Your task to perform on an android device: Is it going to rain tomorrow? Image 0: 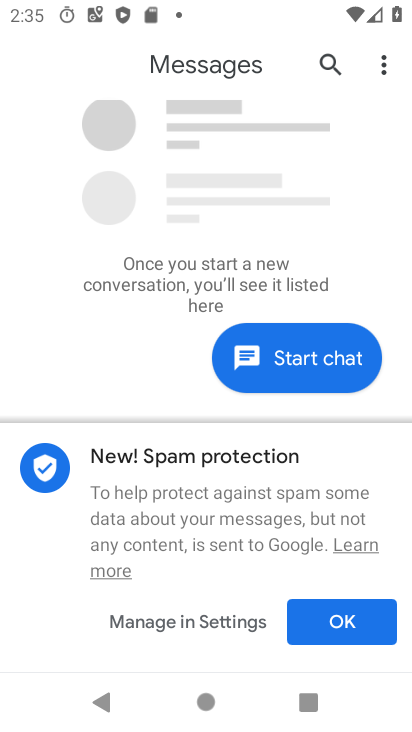
Step 0: press home button
Your task to perform on an android device: Is it going to rain tomorrow? Image 1: 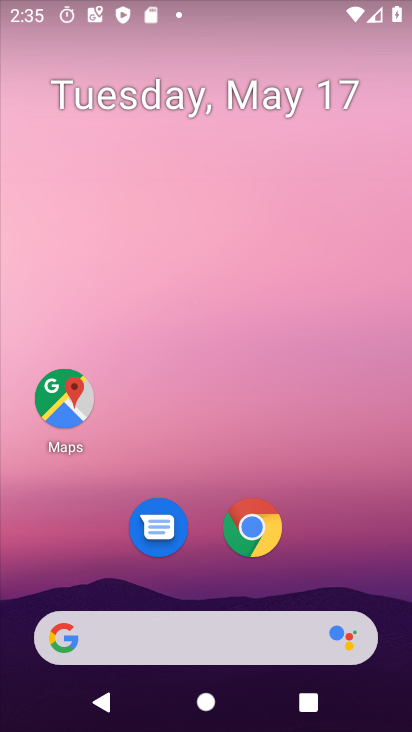
Step 1: drag from (231, 667) to (320, 69)
Your task to perform on an android device: Is it going to rain tomorrow? Image 2: 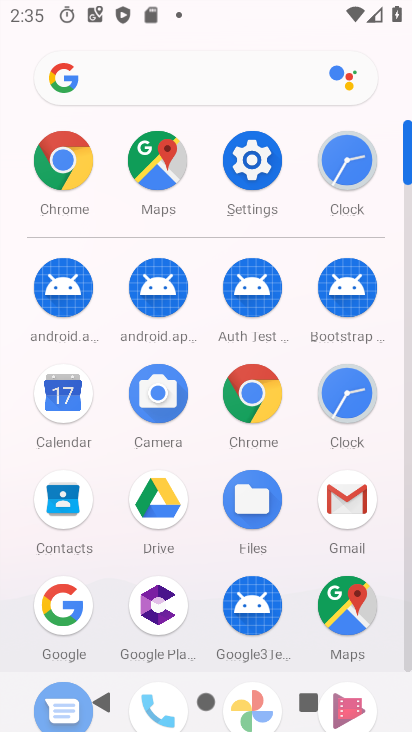
Step 2: click (108, 76)
Your task to perform on an android device: Is it going to rain tomorrow? Image 3: 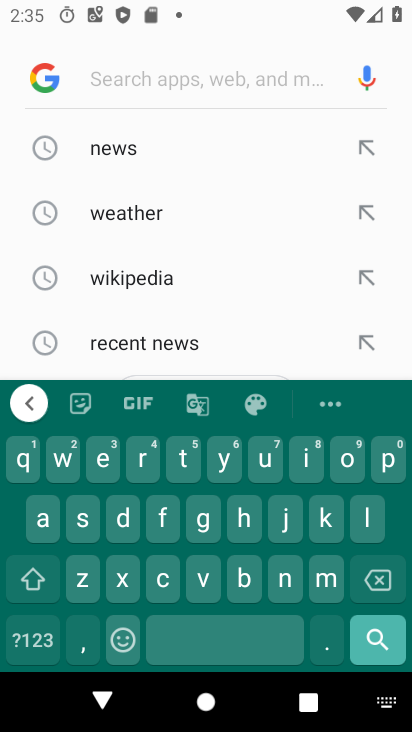
Step 3: click (138, 459)
Your task to perform on an android device: Is it going to rain tomorrow? Image 4: 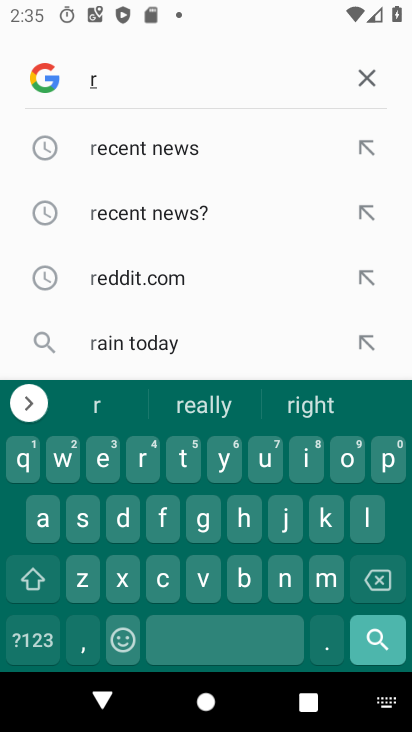
Step 4: click (45, 526)
Your task to perform on an android device: Is it going to rain tomorrow? Image 5: 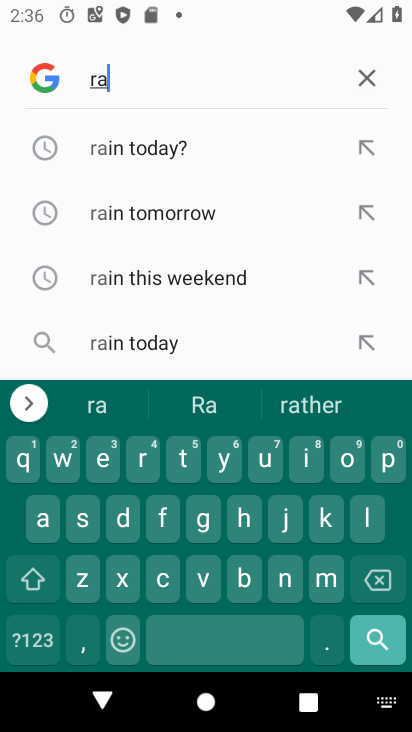
Step 5: click (308, 451)
Your task to perform on an android device: Is it going to rain tomorrow? Image 6: 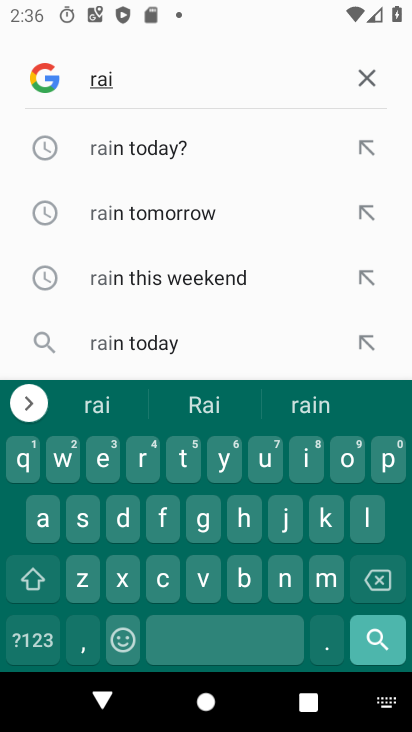
Step 6: click (178, 219)
Your task to perform on an android device: Is it going to rain tomorrow? Image 7: 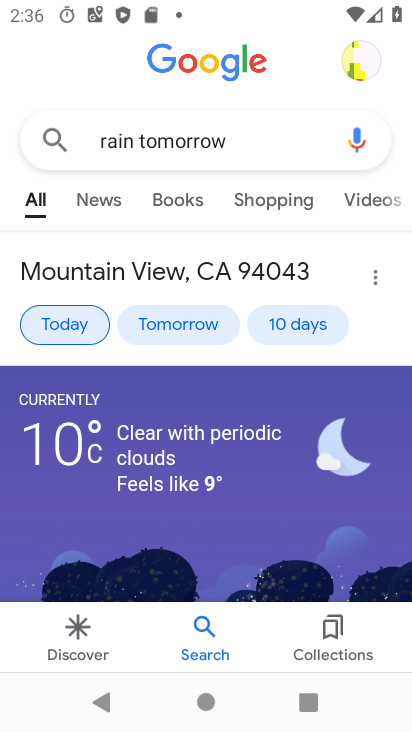
Step 7: task complete